Your task to perform on an android device: Do I have any events this weekend? Image 0: 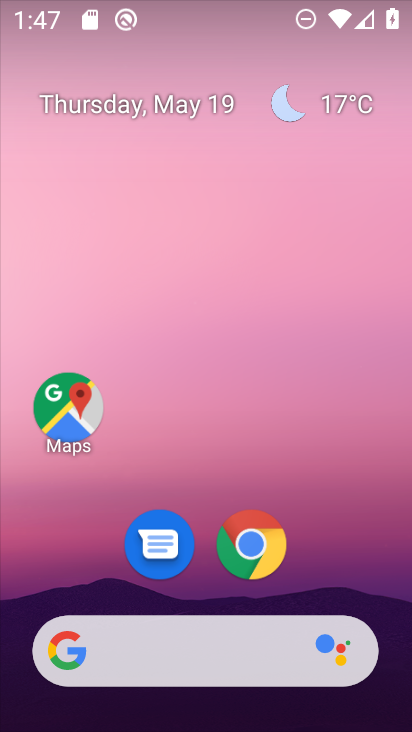
Step 0: drag from (222, 619) to (228, 178)
Your task to perform on an android device: Do I have any events this weekend? Image 1: 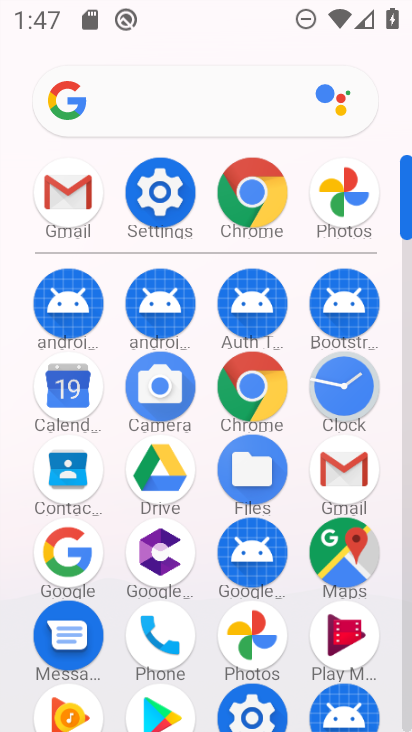
Step 1: click (73, 391)
Your task to perform on an android device: Do I have any events this weekend? Image 2: 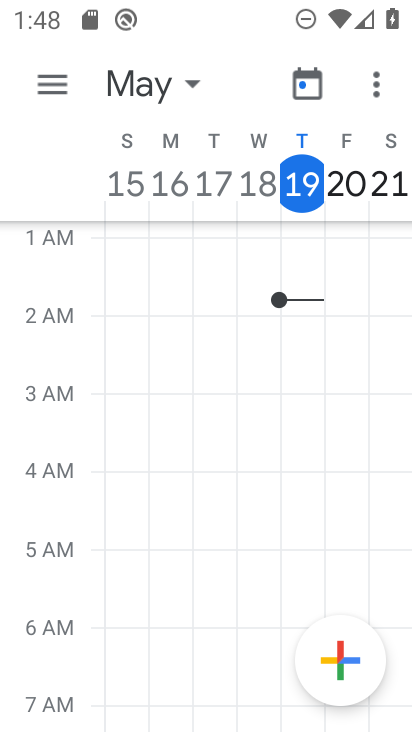
Step 2: click (193, 83)
Your task to perform on an android device: Do I have any events this weekend? Image 3: 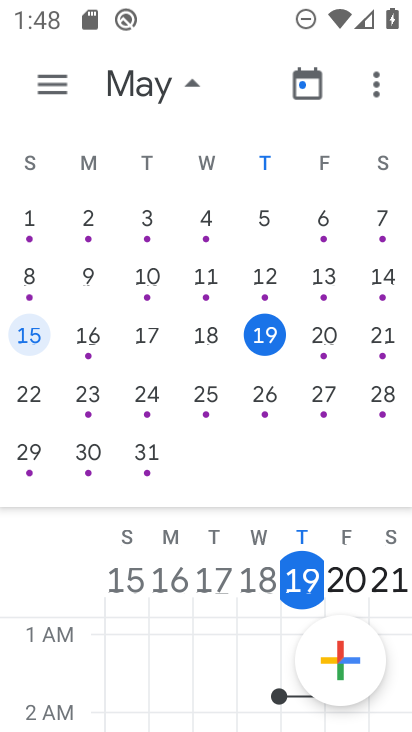
Step 3: click (379, 331)
Your task to perform on an android device: Do I have any events this weekend? Image 4: 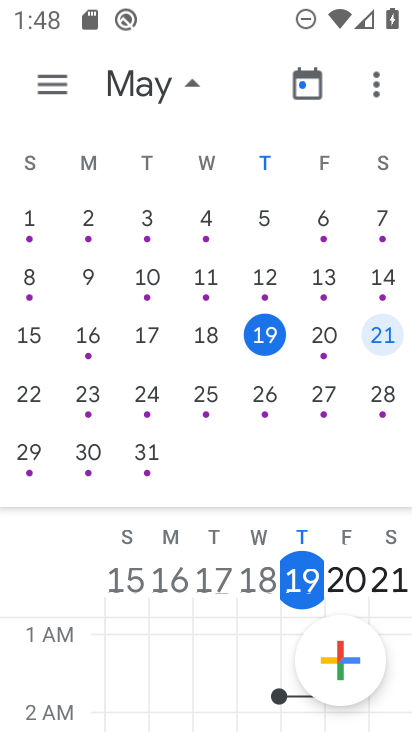
Step 4: click (377, 331)
Your task to perform on an android device: Do I have any events this weekend? Image 5: 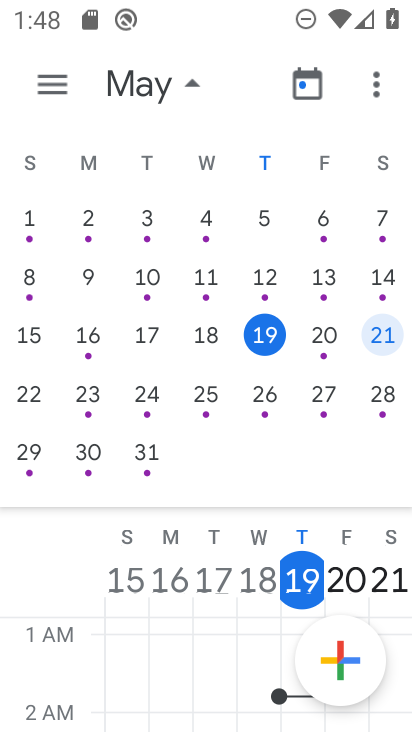
Step 5: click (184, 83)
Your task to perform on an android device: Do I have any events this weekend? Image 6: 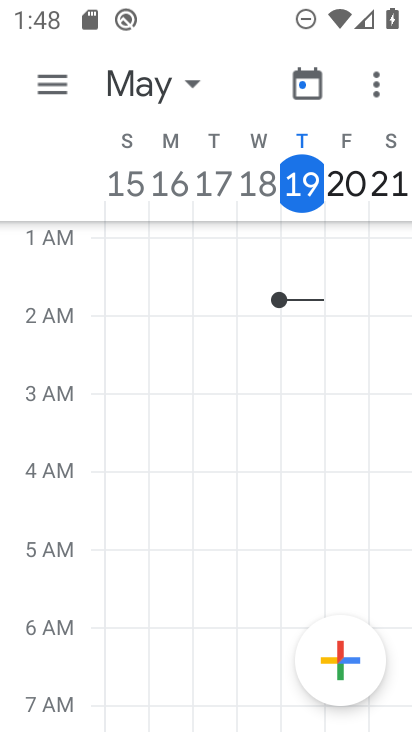
Step 6: click (300, 182)
Your task to perform on an android device: Do I have any events this weekend? Image 7: 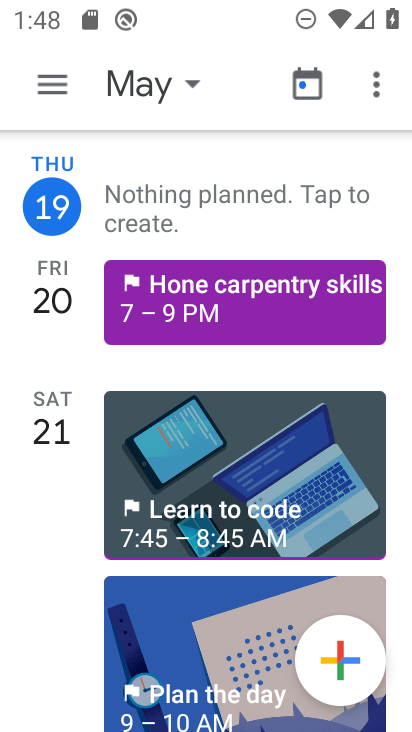
Step 7: task complete